Your task to perform on an android device: turn off smart reply in the gmail app Image 0: 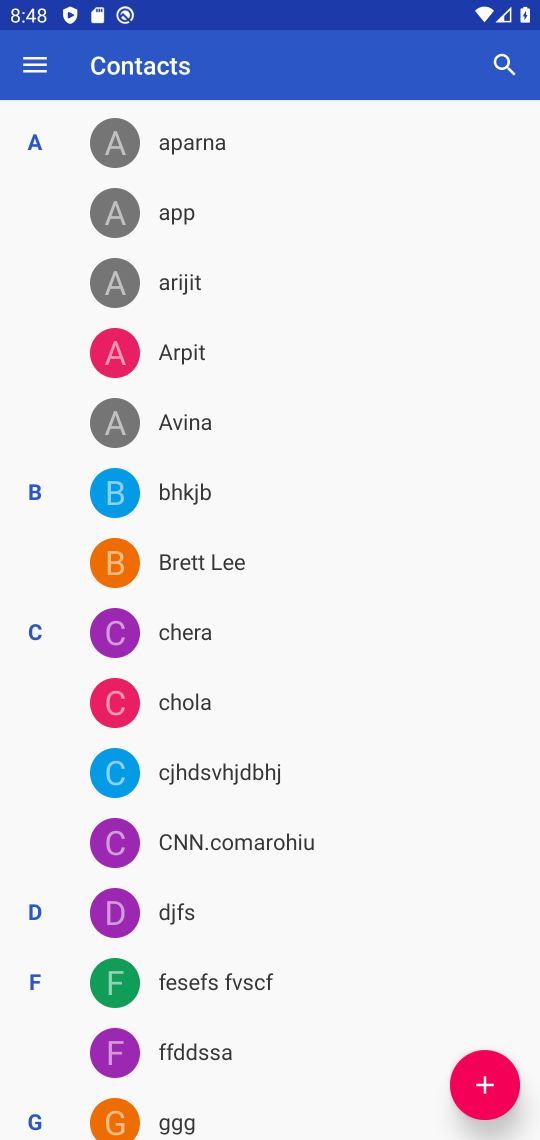
Step 0: press home button
Your task to perform on an android device: turn off smart reply in the gmail app Image 1: 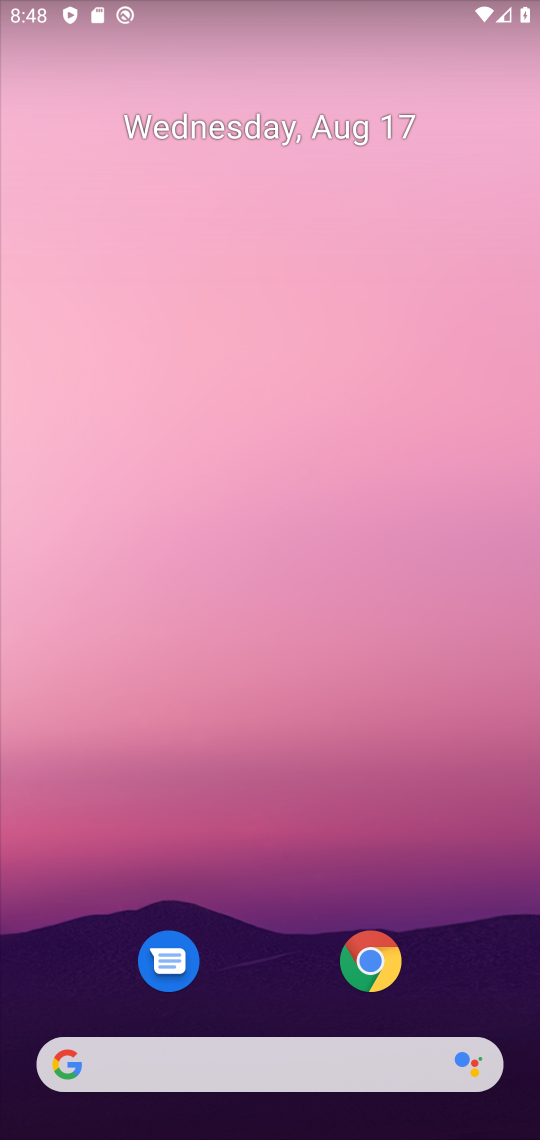
Step 1: drag from (266, 706) to (382, 10)
Your task to perform on an android device: turn off smart reply in the gmail app Image 2: 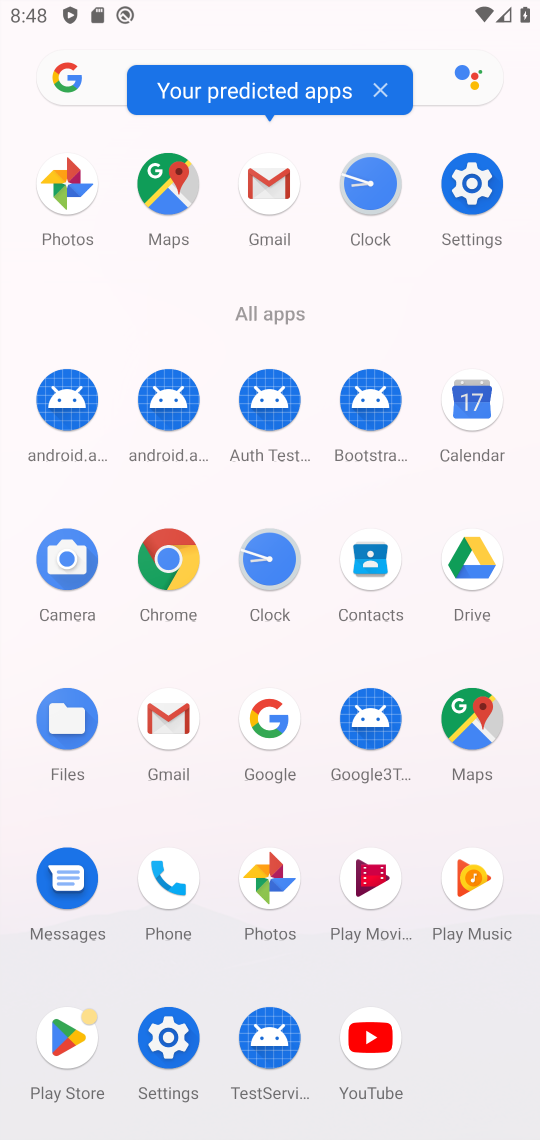
Step 2: click (168, 739)
Your task to perform on an android device: turn off smart reply in the gmail app Image 3: 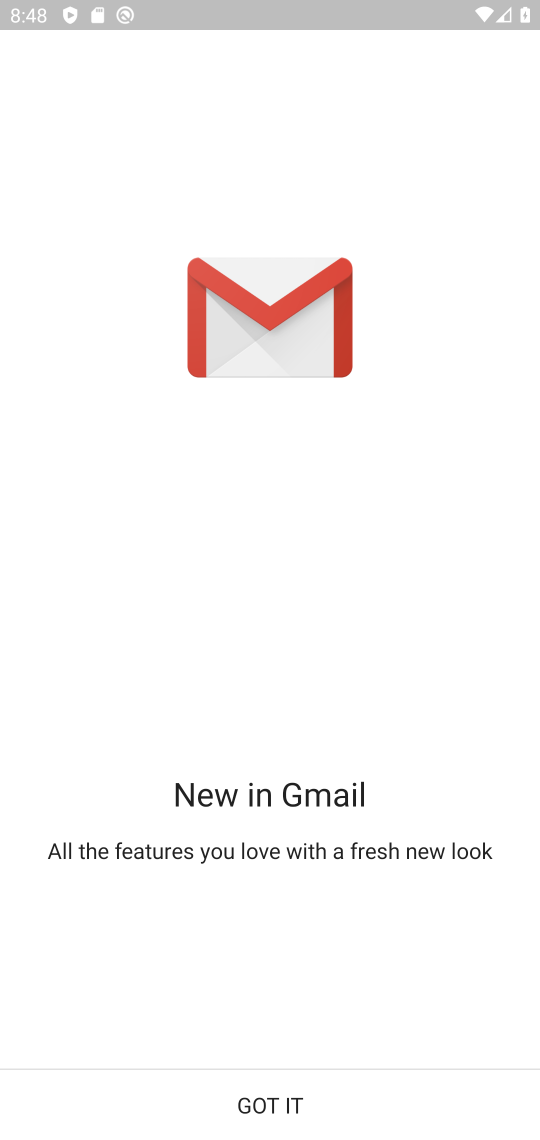
Step 3: click (250, 1123)
Your task to perform on an android device: turn off smart reply in the gmail app Image 4: 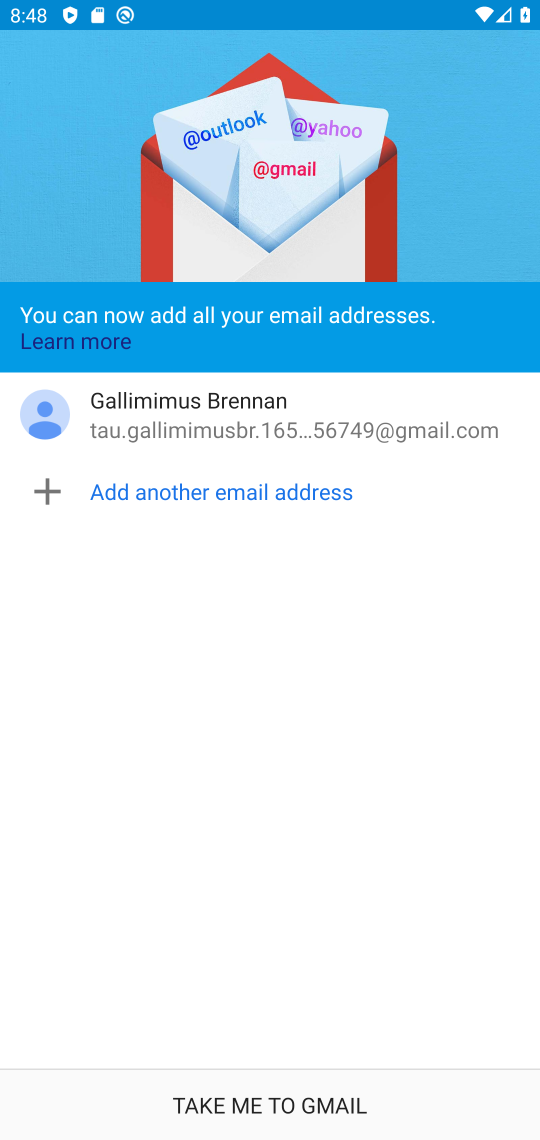
Step 4: click (257, 1100)
Your task to perform on an android device: turn off smart reply in the gmail app Image 5: 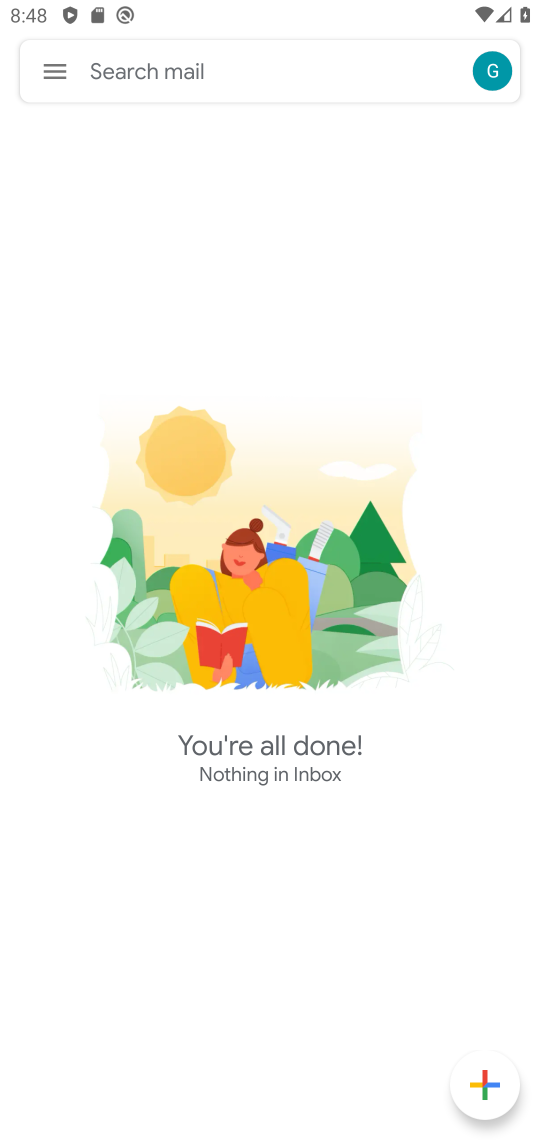
Step 5: click (50, 65)
Your task to perform on an android device: turn off smart reply in the gmail app Image 6: 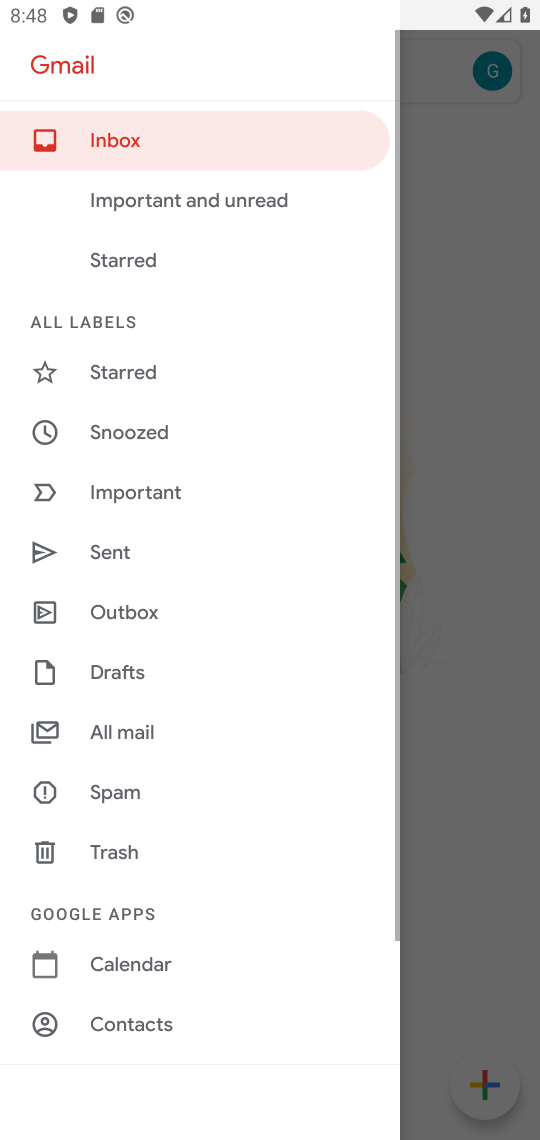
Step 6: drag from (168, 1031) to (244, 211)
Your task to perform on an android device: turn off smart reply in the gmail app Image 7: 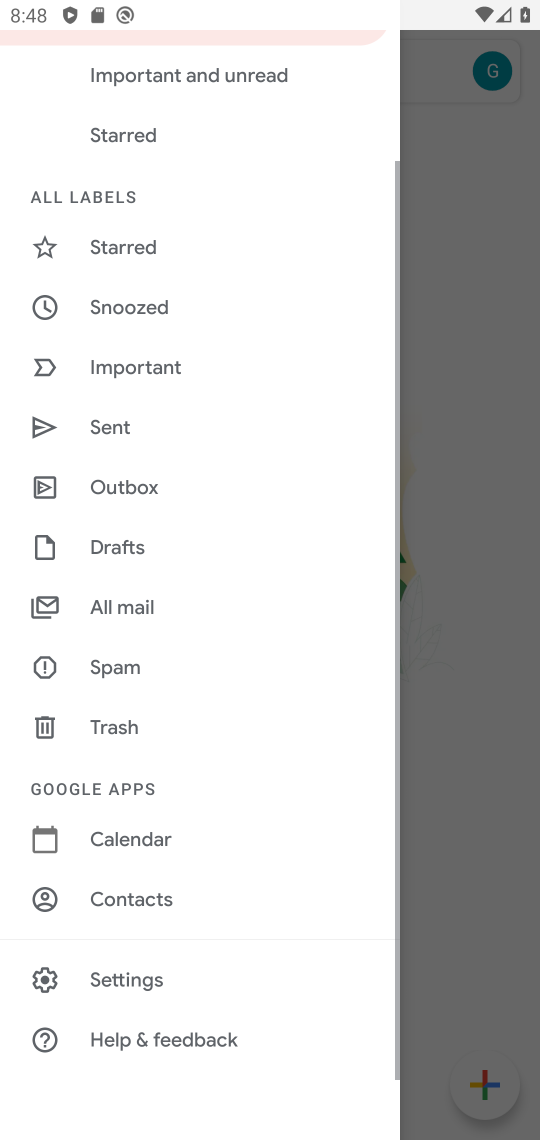
Step 7: click (88, 988)
Your task to perform on an android device: turn off smart reply in the gmail app Image 8: 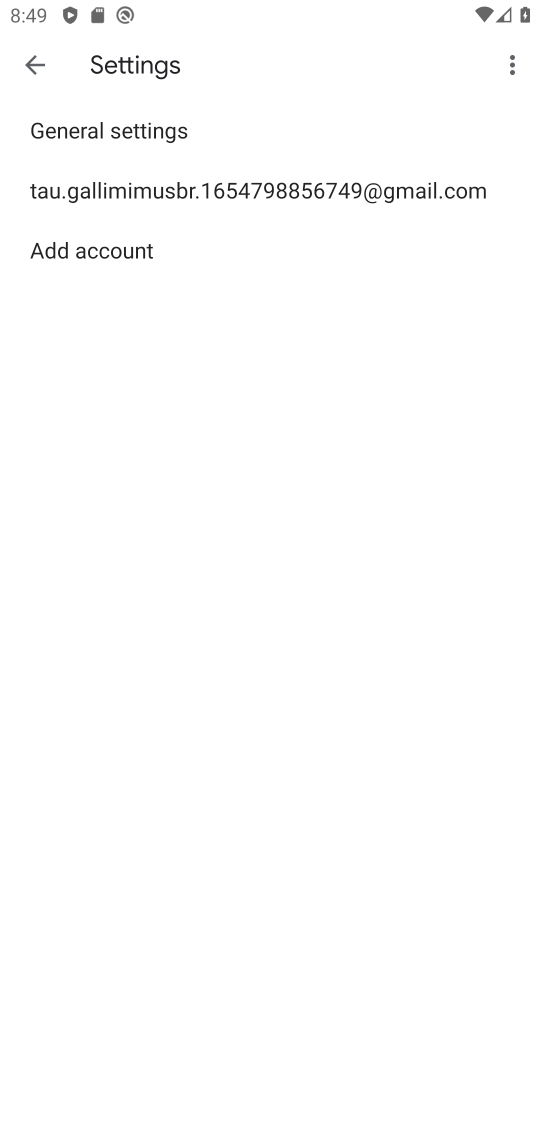
Step 8: click (307, 193)
Your task to perform on an android device: turn off smart reply in the gmail app Image 9: 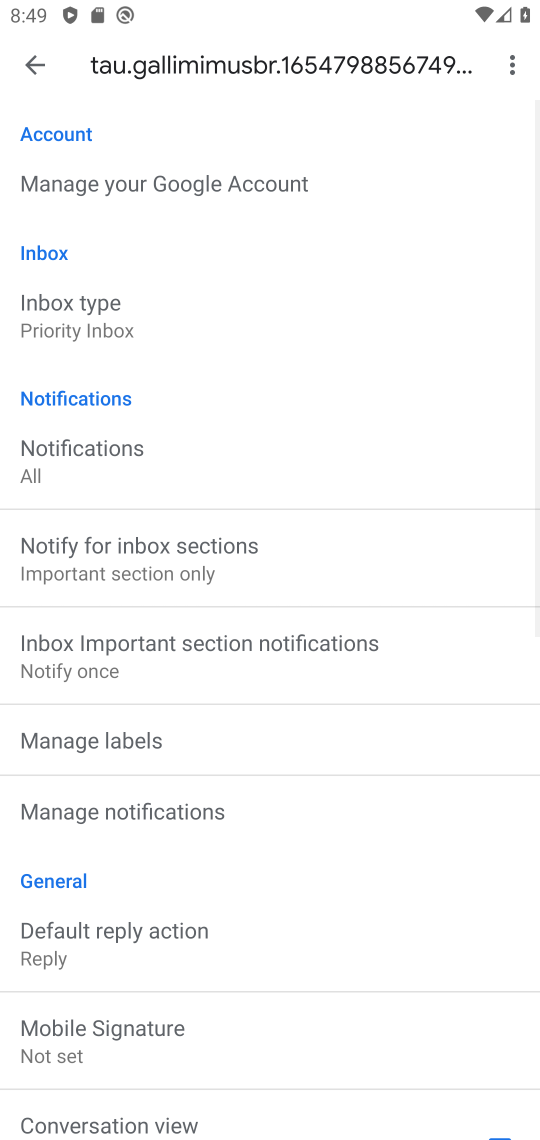
Step 9: drag from (251, 730) to (350, 137)
Your task to perform on an android device: turn off smart reply in the gmail app Image 10: 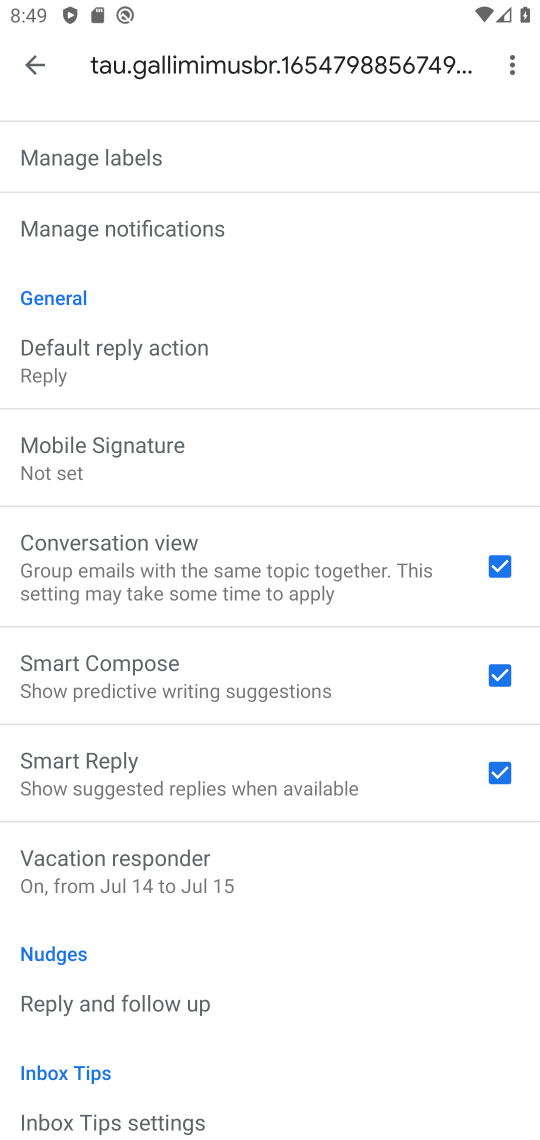
Step 10: click (492, 770)
Your task to perform on an android device: turn off smart reply in the gmail app Image 11: 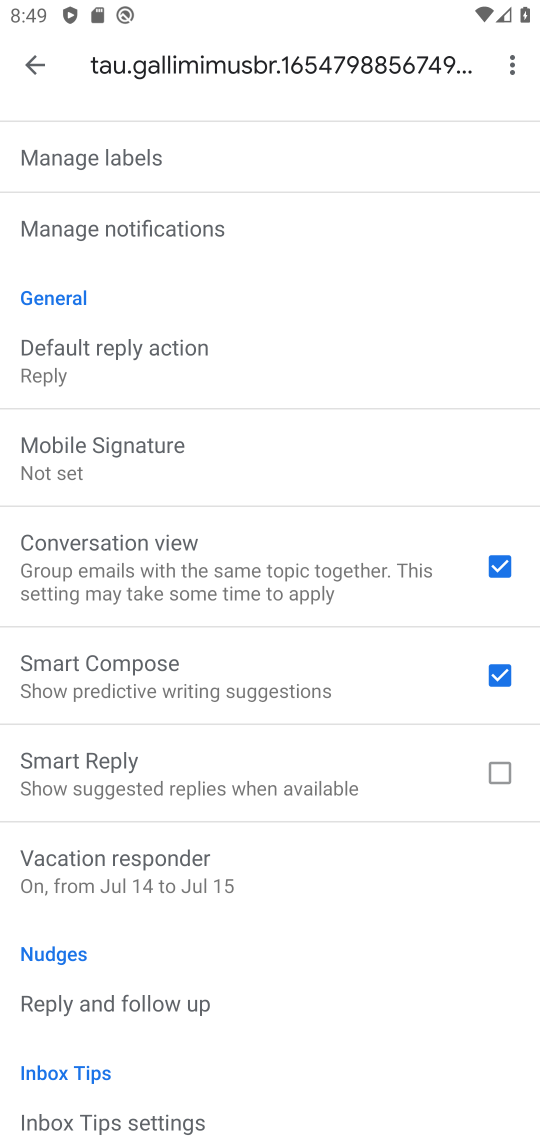
Step 11: task complete